Your task to perform on an android device: Is it going to rain this weekend? Image 0: 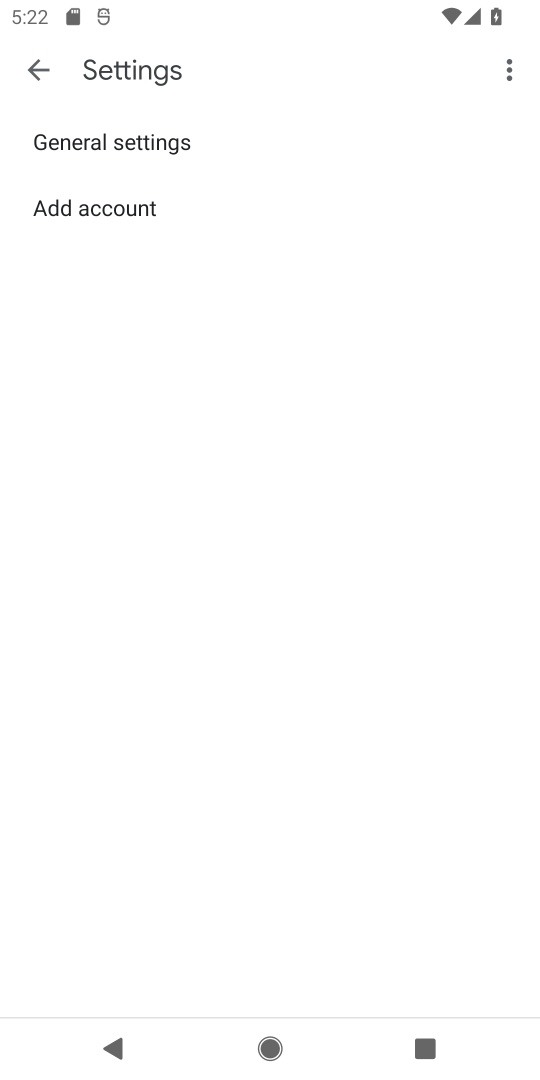
Step 0: press home button
Your task to perform on an android device: Is it going to rain this weekend? Image 1: 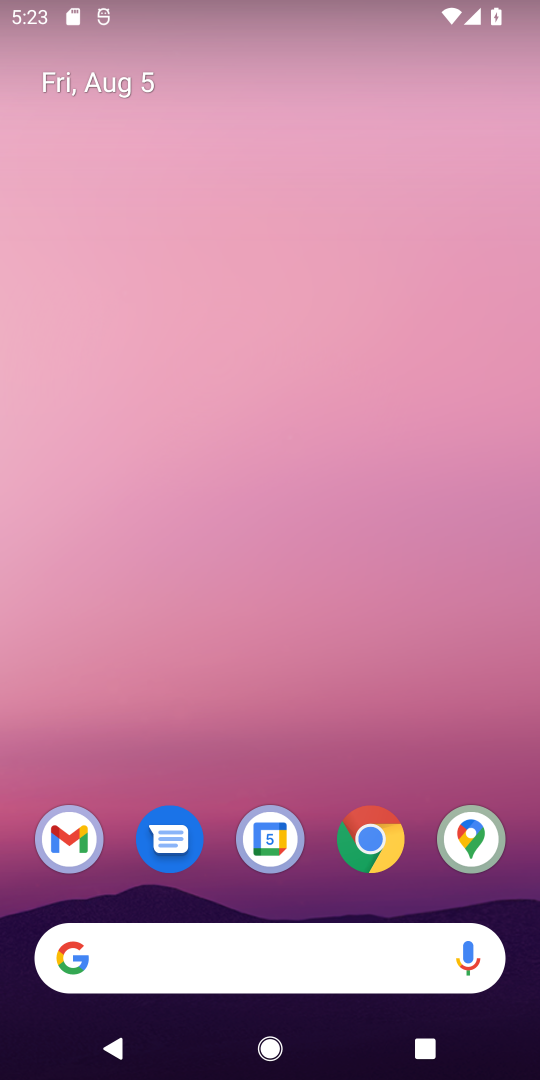
Step 1: drag from (243, 777) to (186, 138)
Your task to perform on an android device: Is it going to rain this weekend? Image 2: 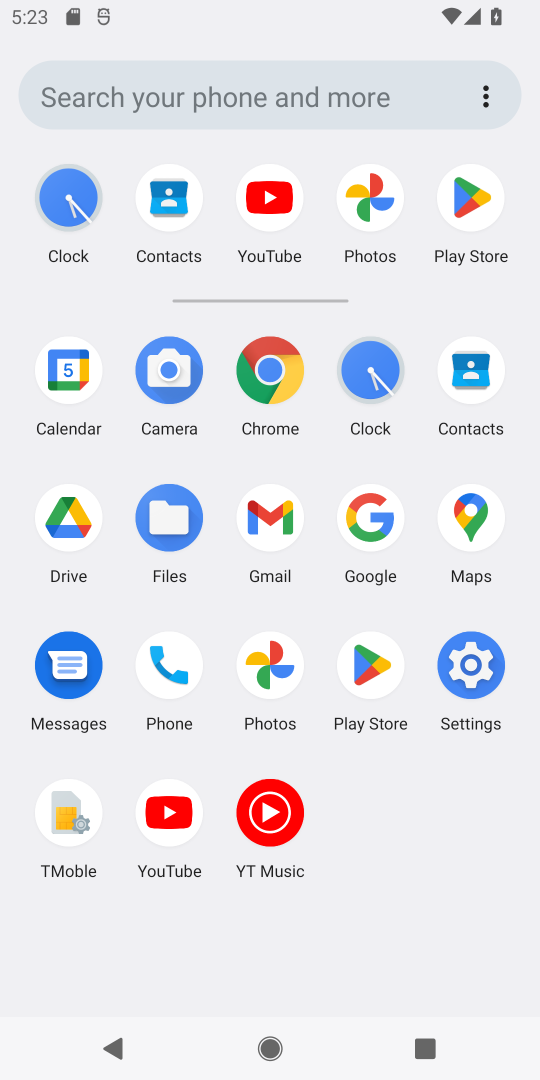
Step 2: click (346, 518)
Your task to perform on an android device: Is it going to rain this weekend? Image 3: 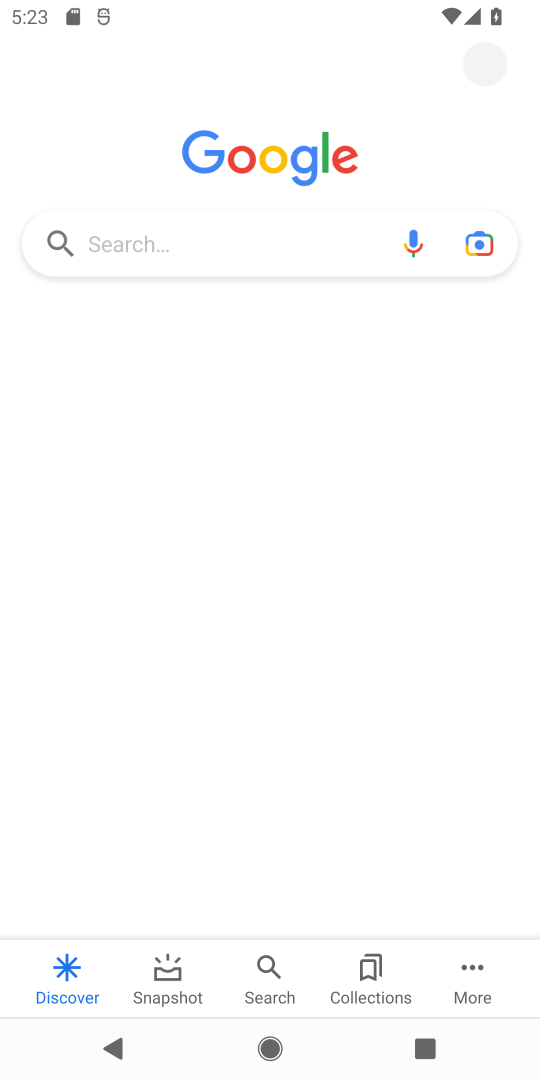
Step 3: click (153, 246)
Your task to perform on an android device: Is it going to rain this weekend? Image 4: 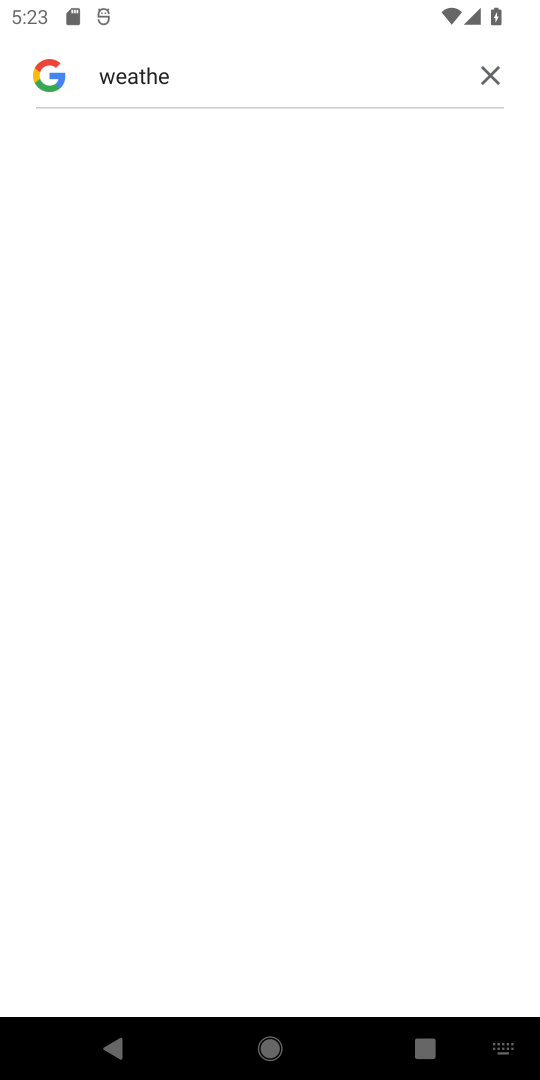
Step 4: click (481, 69)
Your task to perform on an android device: Is it going to rain this weekend? Image 5: 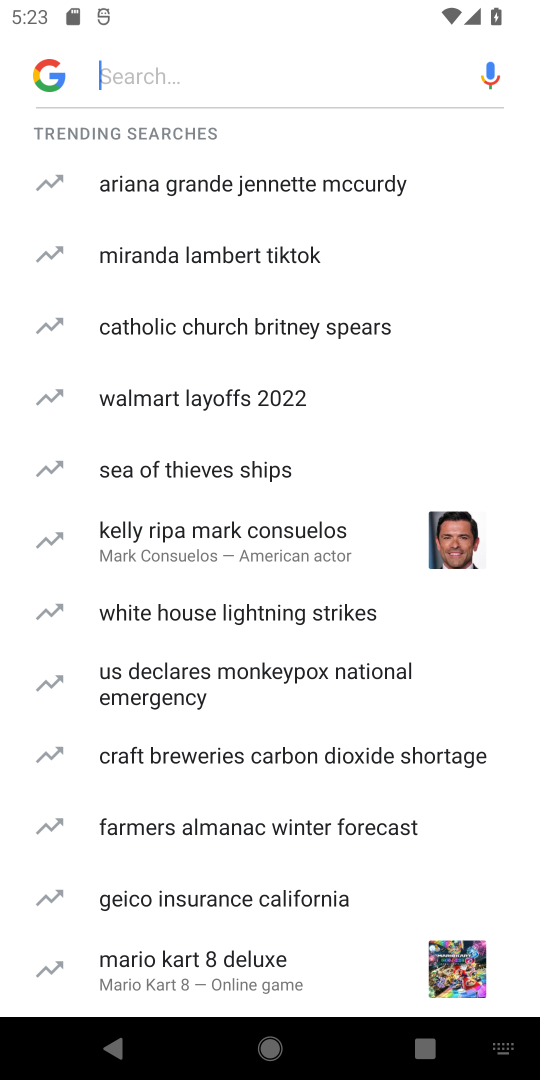
Step 5: click (156, 83)
Your task to perform on an android device: Is it going to rain this weekend? Image 6: 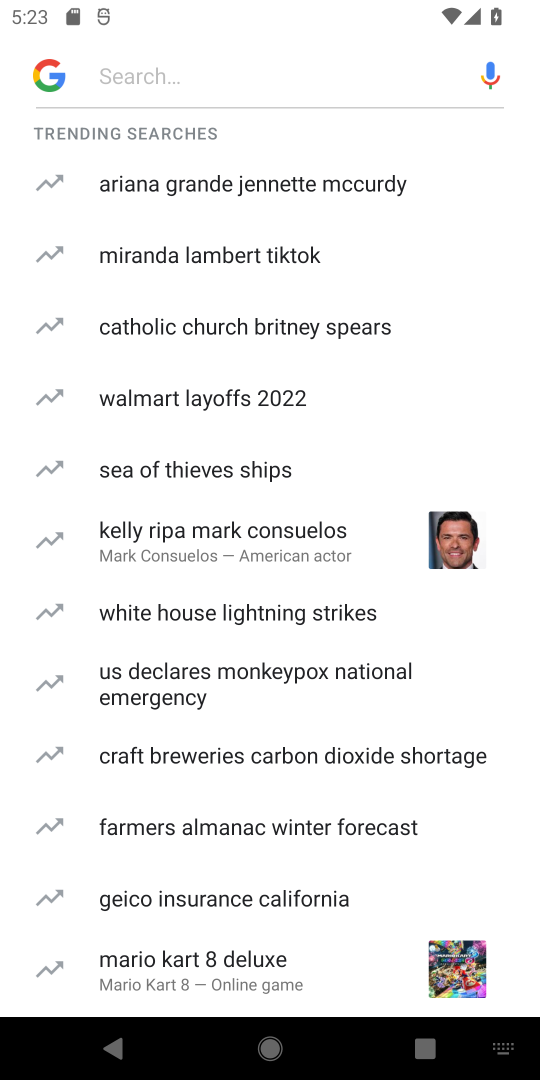
Step 6: type "weather"
Your task to perform on an android device: Is it going to rain this weekend? Image 7: 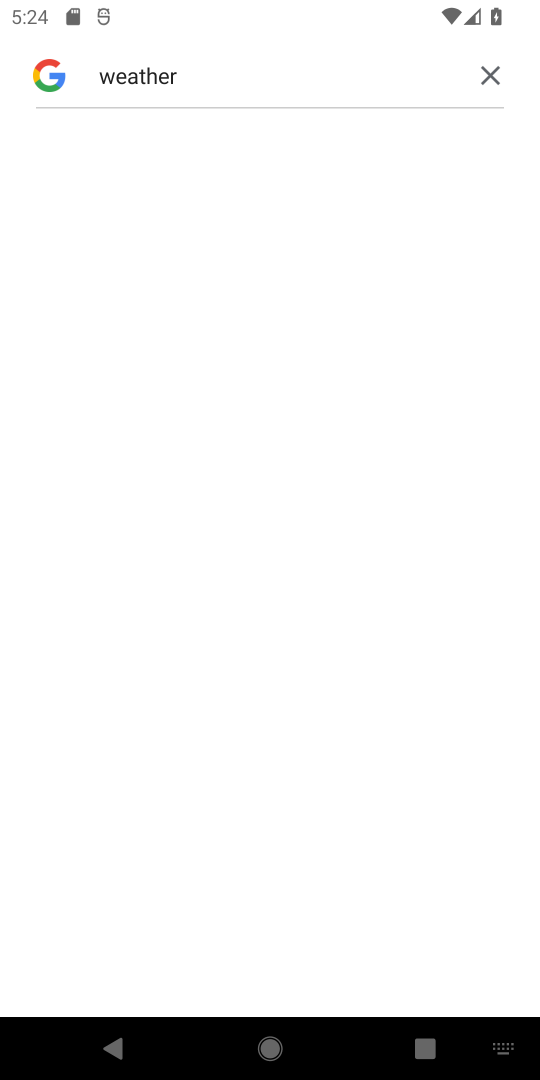
Step 7: task complete